Your task to perform on an android device: Do I have any events tomorrow? Image 0: 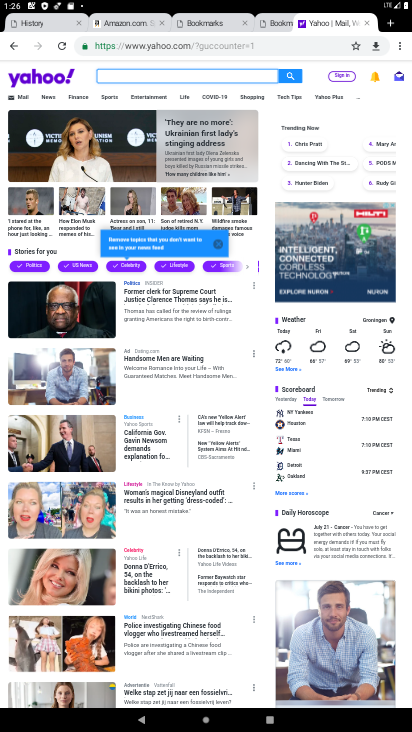
Step 0: press home button
Your task to perform on an android device: Do I have any events tomorrow? Image 1: 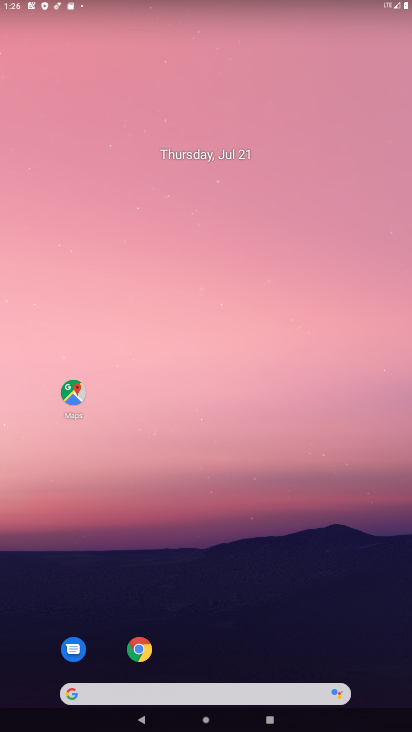
Step 1: drag from (215, 718) to (206, 175)
Your task to perform on an android device: Do I have any events tomorrow? Image 2: 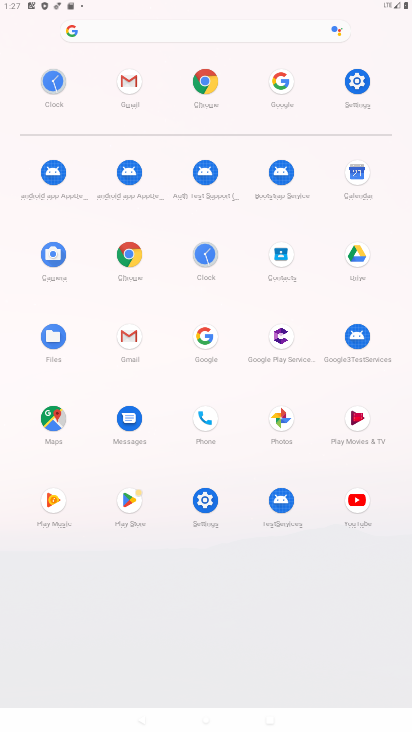
Step 2: click (354, 171)
Your task to perform on an android device: Do I have any events tomorrow? Image 3: 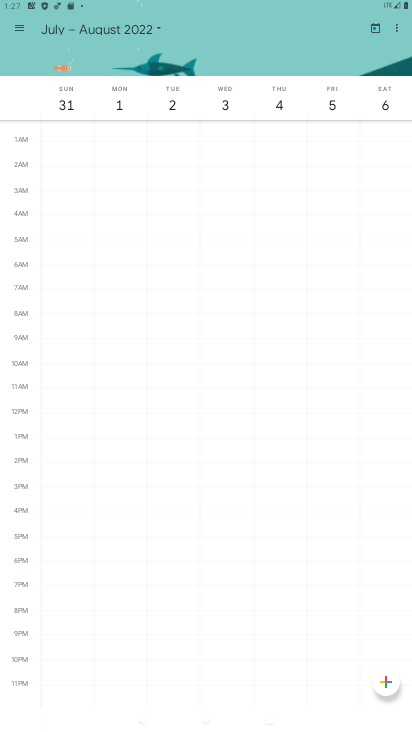
Step 3: click (158, 25)
Your task to perform on an android device: Do I have any events tomorrow? Image 4: 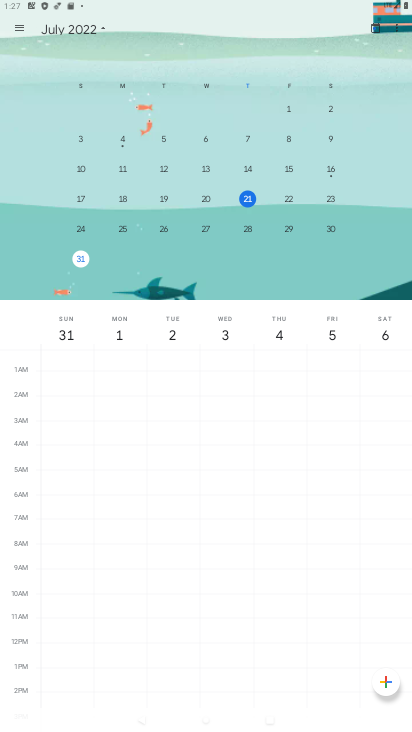
Step 4: click (289, 195)
Your task to perform on an android device: Do I have any events tomorrow? Image 5: 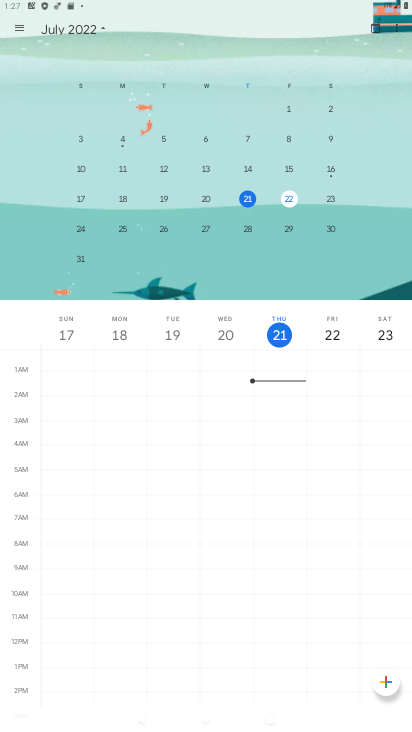
Step 5: click (333, 331)
Your task to perform on an android device: Do I have any events tomorrow? Image 6: 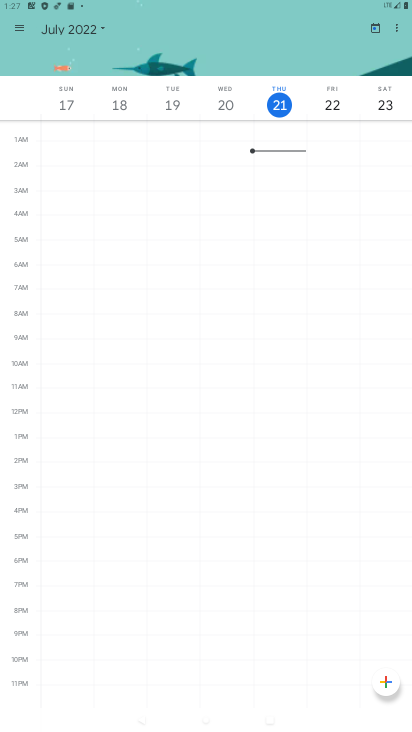
Step 6: click (334, 97)
Your task to perform on an android device: Do I have any events tomorrow? Image 7: 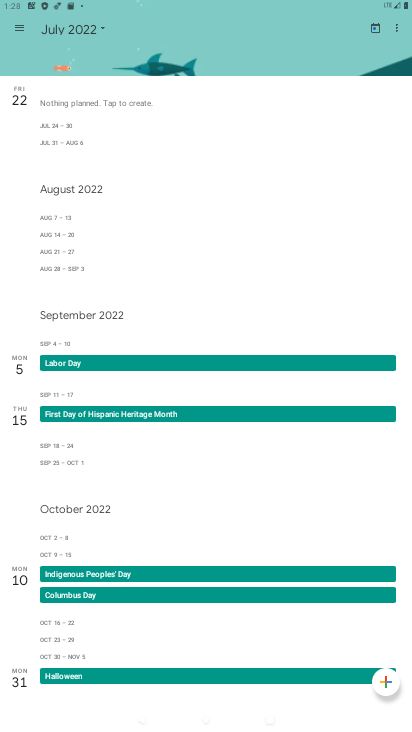
Step 7: task complete